Your task to perform on an android device: Do I have any events this weekend? Image 0: 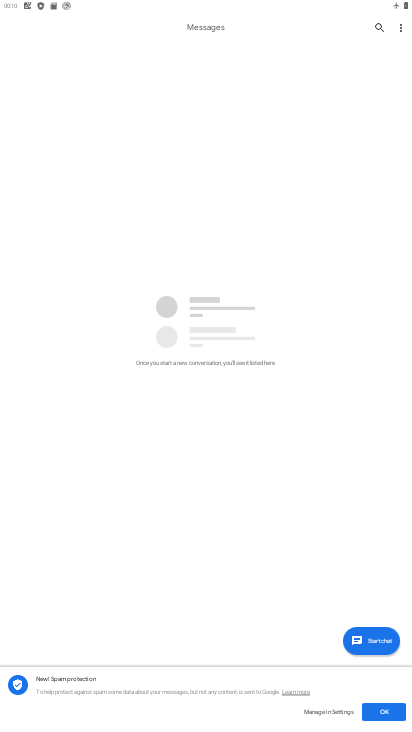
Step 0: press home button
Your task to perform on an android device: Do I have any events this weekend? Image 1: 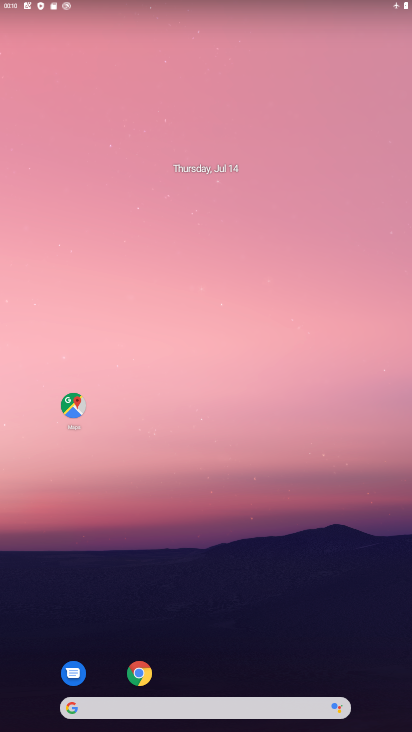
Step 1: drag from (210, 628) to (194, 174)
Your task to perform on an android device: Do I have any events this weekend? Image 2: 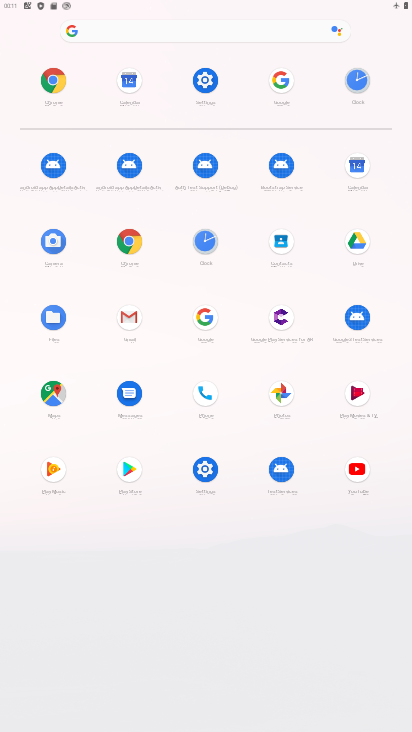
Step 2: click (366, 176)
Your task to perform on an android device: Do I have any events this weekend? Image 3: 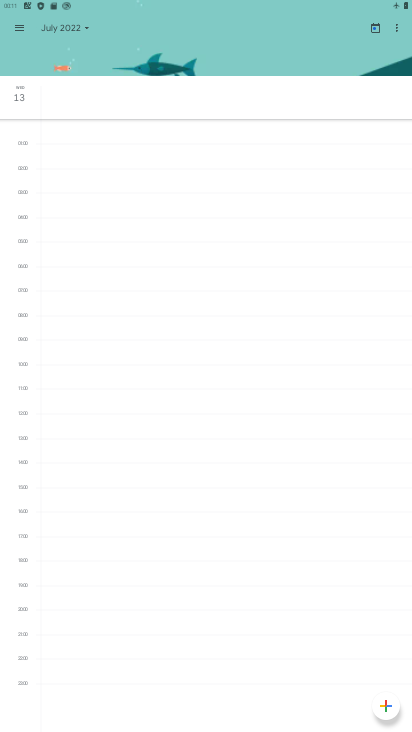
Step 3: task complete